Your task to perform on an android device: Open calendar and show me the second week of next month Image 0: 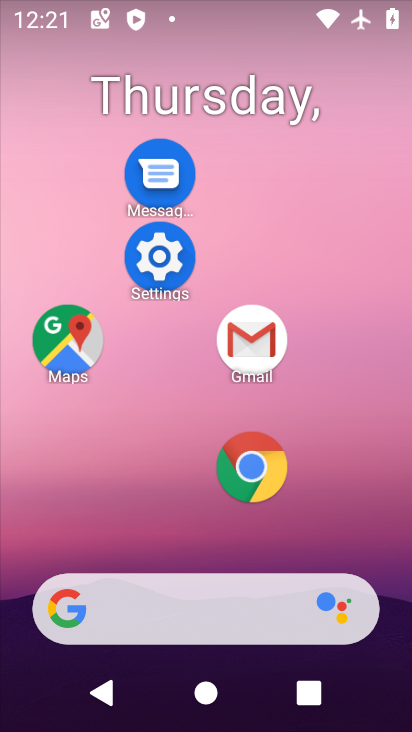
Step 0: drag from (199, 538) to (215, 228)
Your task to perform on an android device: Open calendar and show me the second week of next month Image 1: 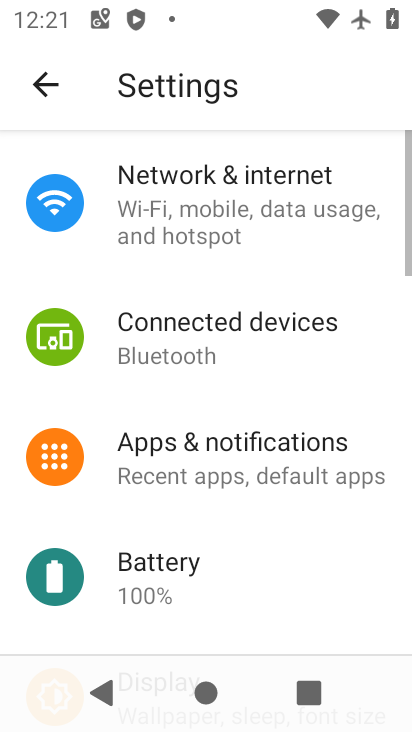
Step 1: drag from (239, 542) to (253, 295)
Your task to perform on an android device: Open calendar and show me the second week of next month Image 2: 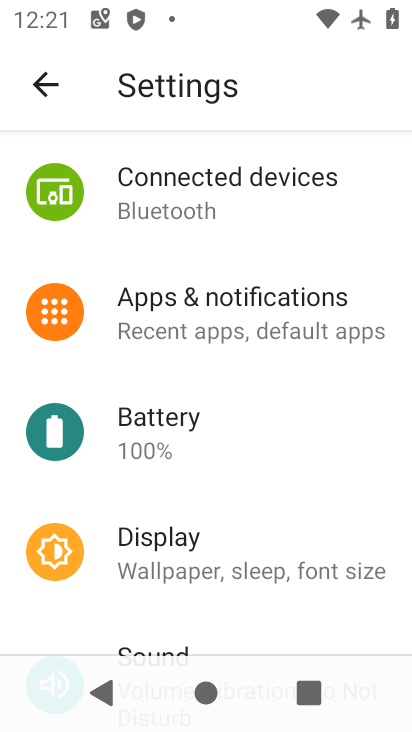
Step 2: drag from (220, 614) to (240, 406)
Your task to perform on an android device: Open calendar and show me the second week of next month Image 3: 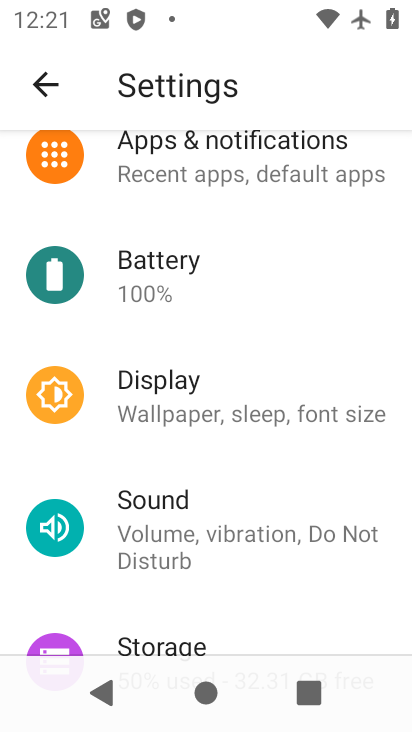
Step 3: press home button
Your task to perform on an android device: Open calendar and show me the second week of next month Image 4: 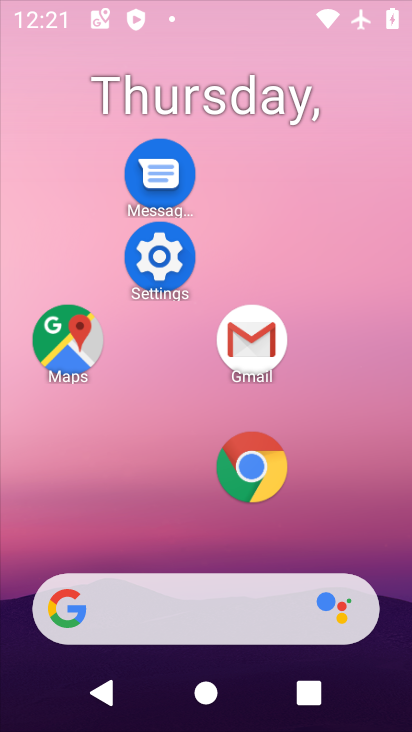
Step 4: drag from (184, 586) to (241, 151)
Your task to perform on an android device: Open calendar and show me the second week of next month Image 5: 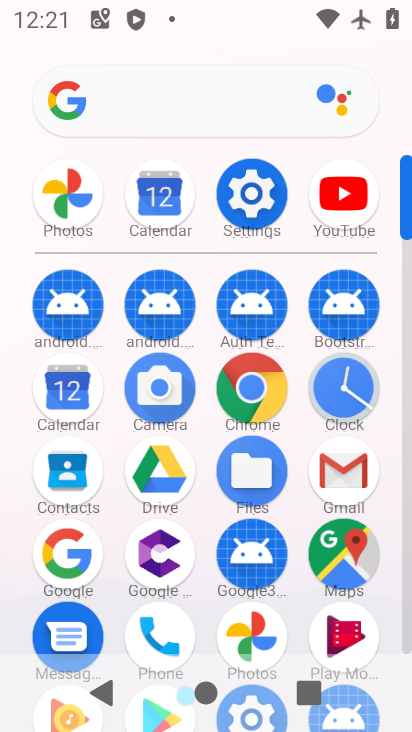
Step 5: drag from (196, 580) to (226, 232)
Your task to perform on an android device: Open calendar and show me the second week of next month Image 6: 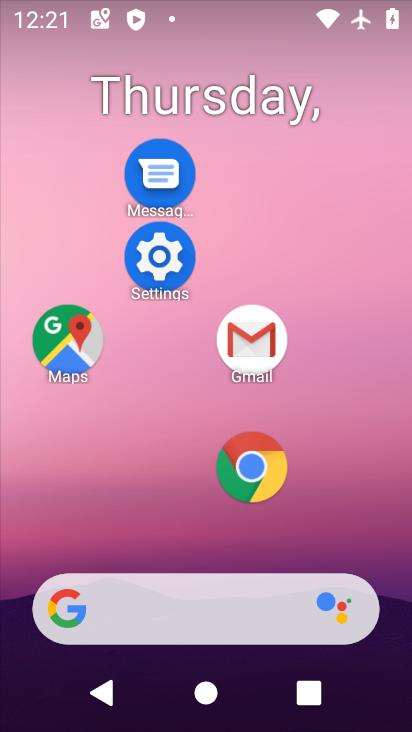
Step 6: drag from (207, 528) to (193, 234)
Your task to perform on an android device: Open calendar and show me the second week of next month Image 7: 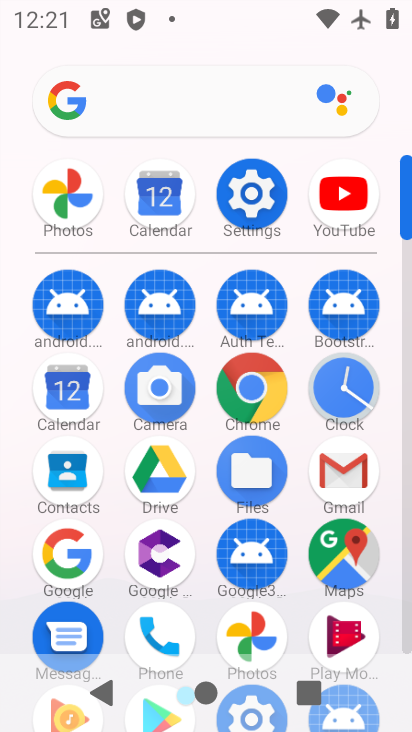
Step 7: drag from (193, 647) to (221, 378)
Your task to perform on an android device: Open calendar and show me the second week of next month Image 8: 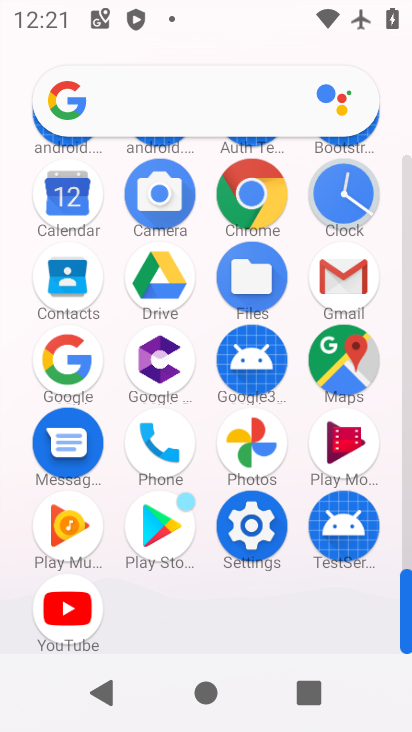
Step 8: click (69, 197)
Your task to perform on an android device: Open calendar and show me the second week of next month Image 9: 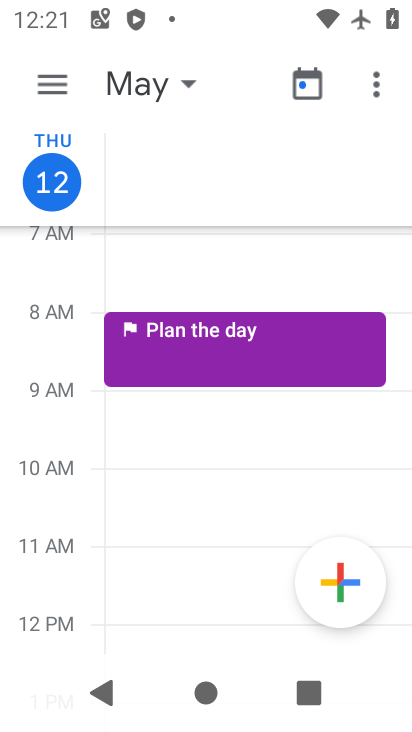
Step 9: drag from (226, 503) to (204, 143)
Your task to perform on an android device: Open calendar and show me the second week of next month Image 10: 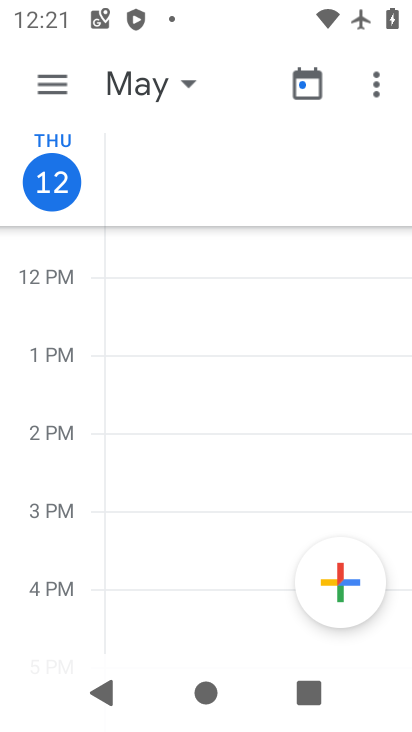
Step 10: drag from (143, 291) to (232, 703)
Your task to perform on an android device: Open calendar and show me the second week of next month Image 11: 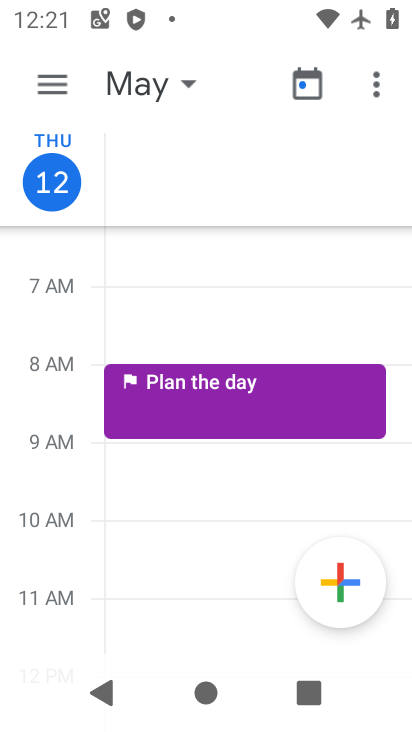
Step 11: drag from (250, 553) to (262, 324)
Your task to perform on an android device: Open calendar and show me the second week of next month Image 12: 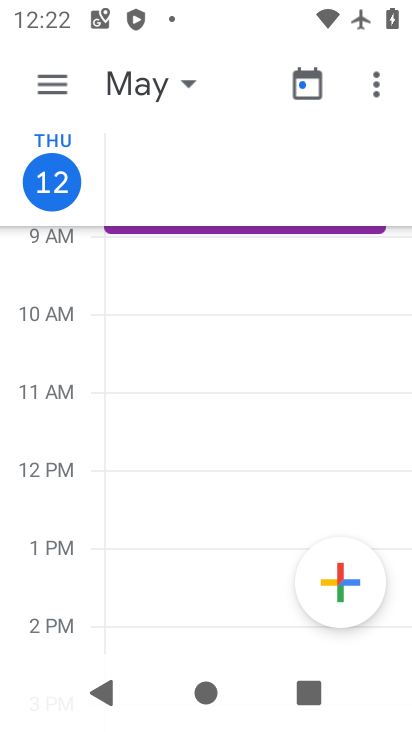
Step 12: click (172, 78)
Your task to perform on an android device: Open calendar and show me the second week of next month Image 13: 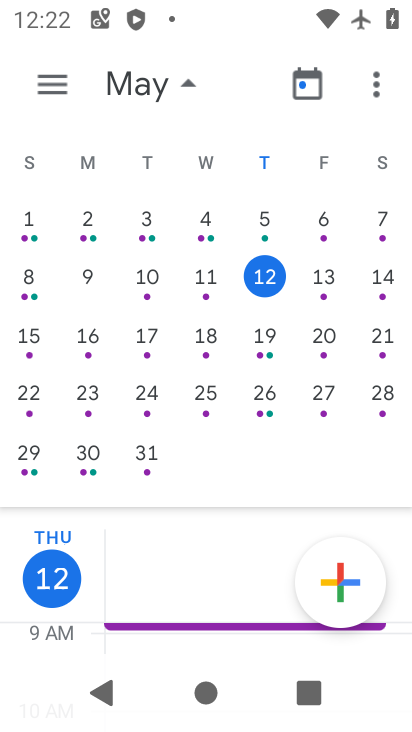
Step 13: drag from (379, 310) to (8, 330)
Your task to perform on an android device: Open calendar and show me the second week of next month Image 14: 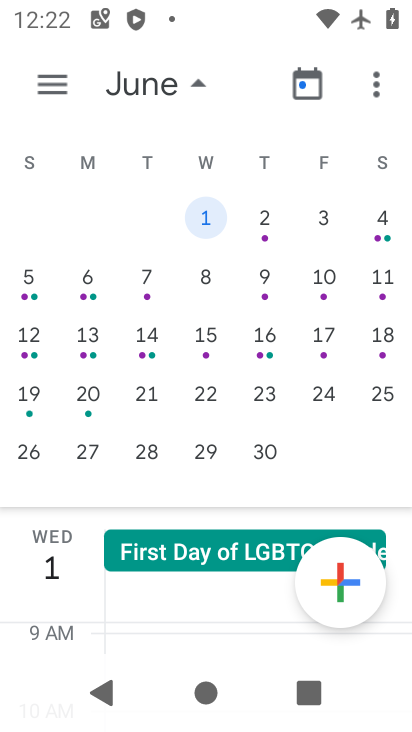
Step 14: click (268, 273)
Your task to perform on an android device: Open calendar and show me the second week of next month Image 15: 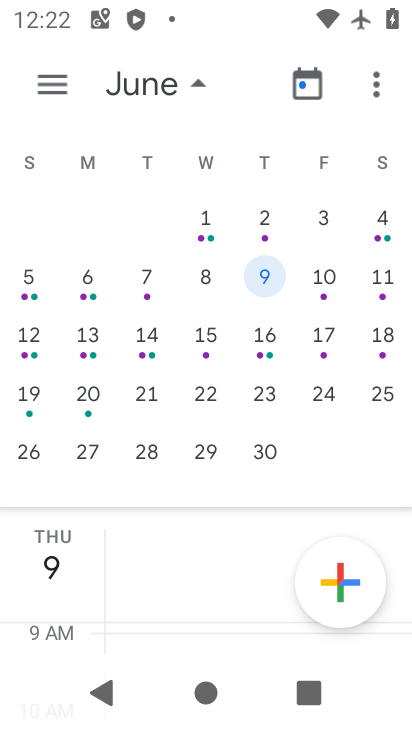
Step 15: drag from (218, 502) to (239, 264)
Your task to perform on an android device: Open calendar and show me the second week of next month Image 16: 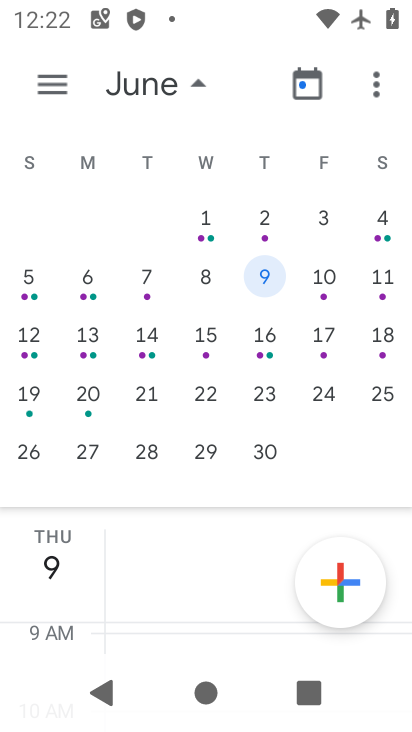
Step 16: click (339, 278)
Your task to perform on an android device: Open calendar and show me the second week of next month Image 17: 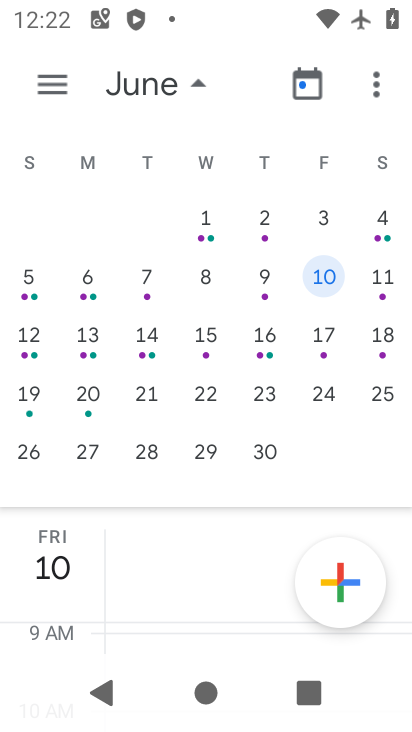
Step 17: drag from (287, 439) to (314, 137)
Your task to perform on an android device: Open calendar and show me the second week of next month Image 18: 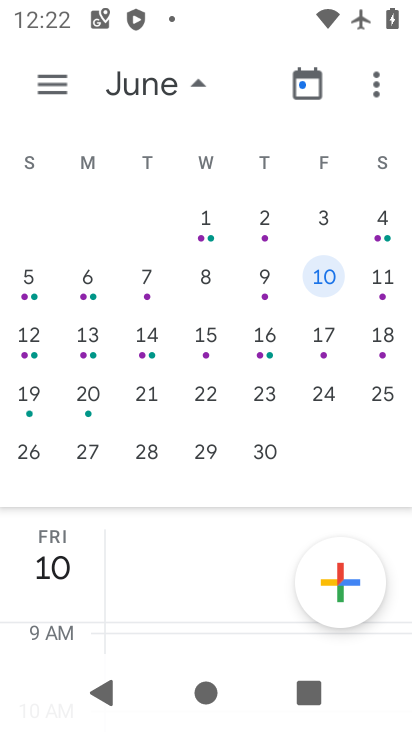
Step 18: click (224, 206)
Your task to perform on an android device: Open calendar and show me the second week of next month Image 19: 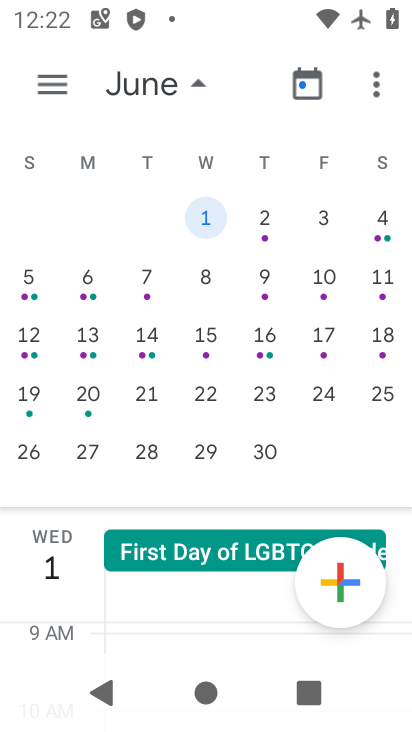
Step 19: click (253, 155)
Your task to perform on an android device: Open calendar and show me the second week of next month Image 20: 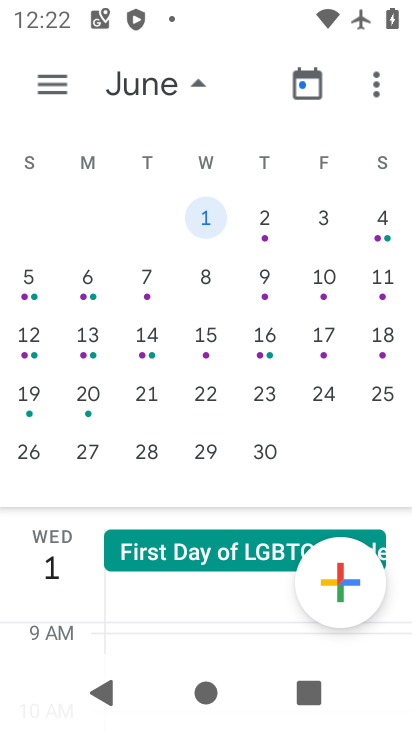
Step 20: click (355, 92)
Your task to perform on an android device: Open calendar and show me the second week of next month Image 21: 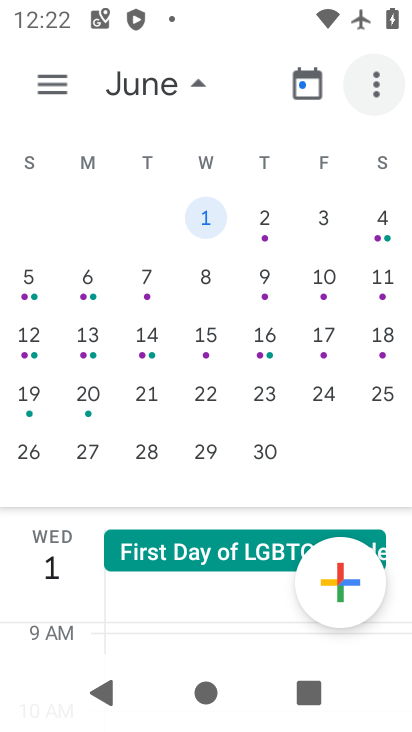
Step 21: task complete